Your task to perform on an android device: Open Google Maps and go to "Timeline" Image 0: 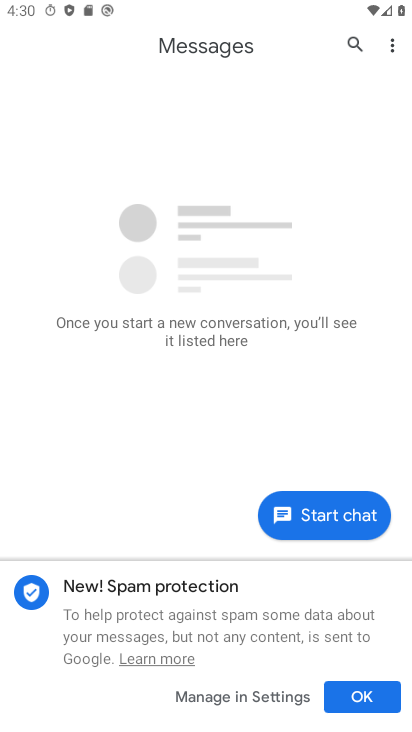
Step 0: press back button
Your task to perform on an android device: Open Google Maps and go to "Timeline" Image 1: 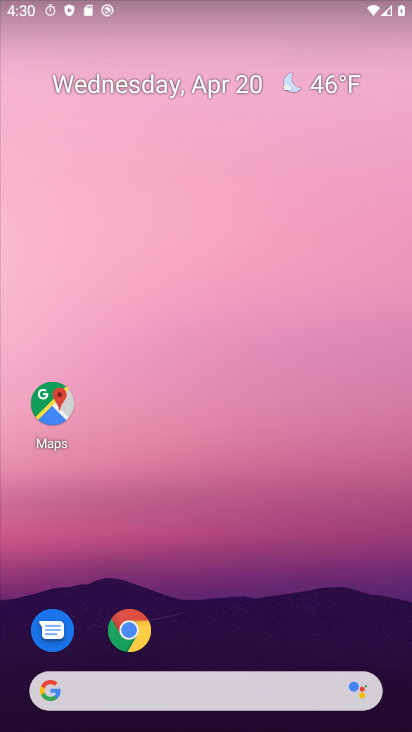
Step 1: click (60, 398)
Your task to perform on an android device: Open Google Maps and go to "Timeline" Image 2: 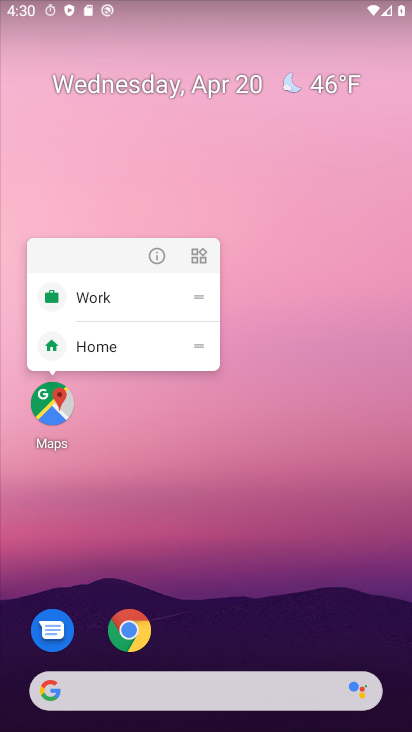
Step 2: click (62, 406)
Your task to perform on an android device: Open Google Maps and go to "Timeline" Image 3: 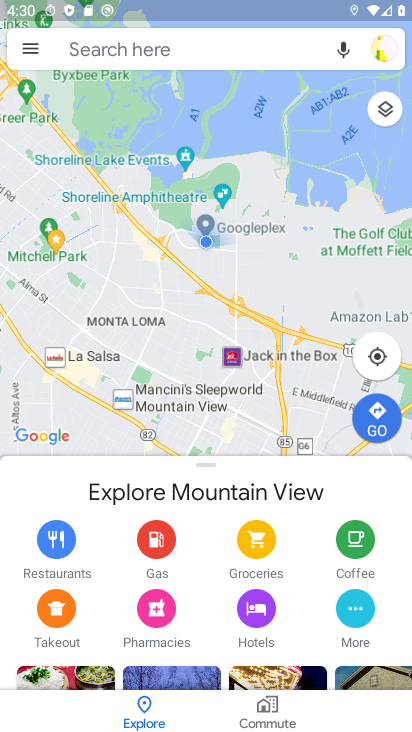
Step 3: click (33, 44)
Your task to perform on an android device: Open Google Maps and go to "Timeline" Image 4: 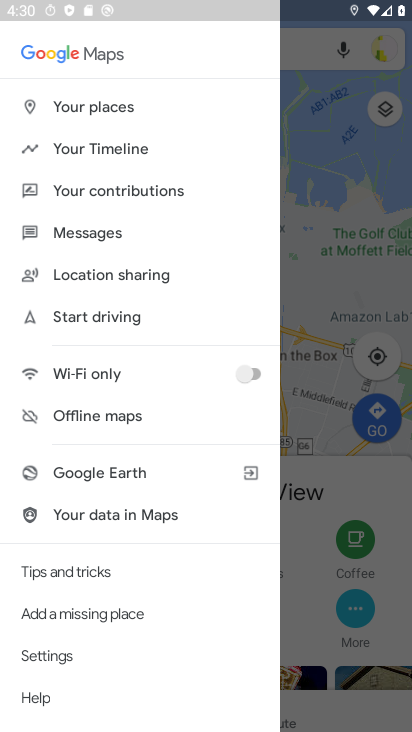
Step 4: click (101, 152)
Your task to perform on an android device: Open Google Maps and go to "Timeline" Image 5: 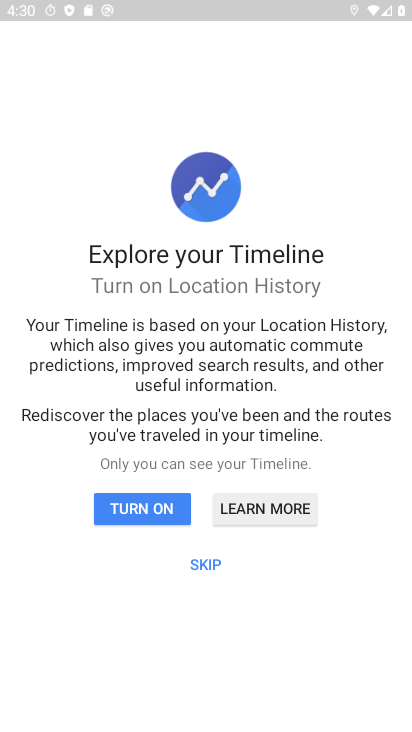
Step 5: click (144, 512)
Your task to perform on an android device: Open Google Maps and go to "Timeline" Image 6: 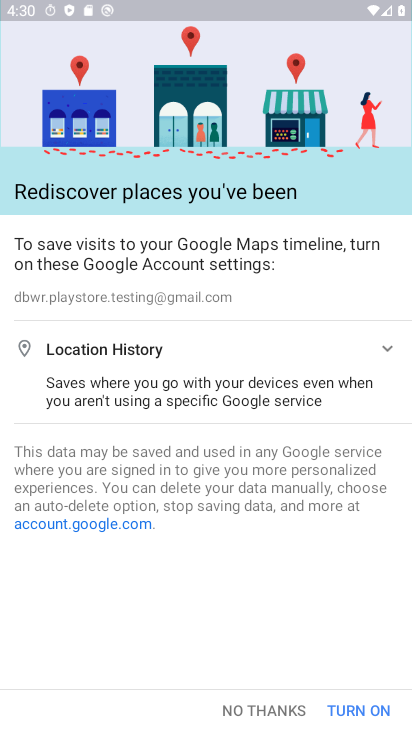
Step 6: task complete